Your task to perform on an android device: When is my next meeting? Image 0: 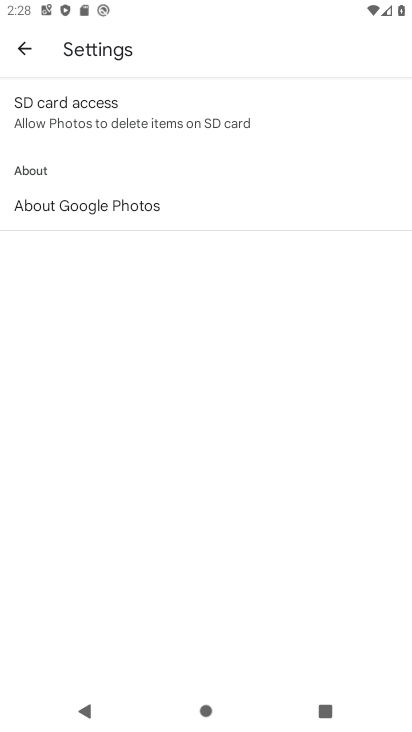
Step 0: click (398, 248)
Your task to perform on an android device: When is my next meeting? Image 1: 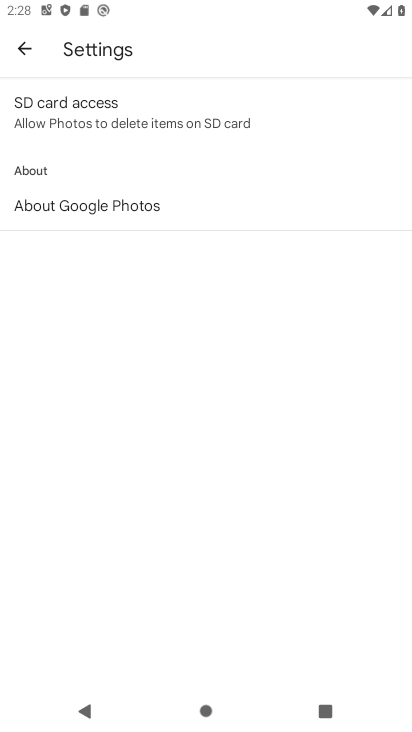
Step 1: drag from (197, 540) to (281, 146)
Your task to perform on an android device: When is my next meeting? Image 2: 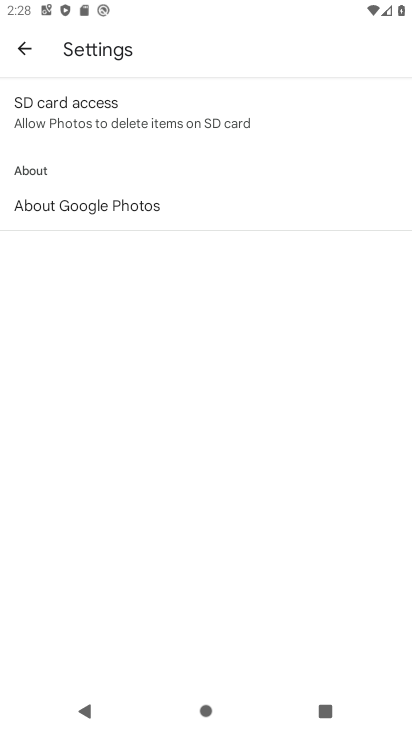
Step 2: press back button
Your task to perform on an android device: When is my next meeting? Image 3: 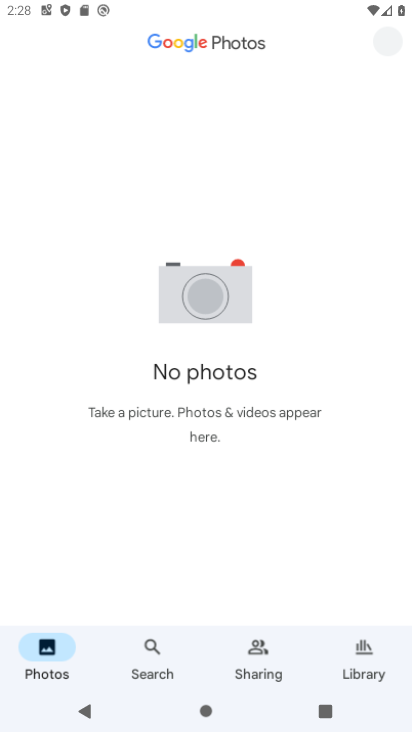
Step 3: press home button
Your task to perform on an android device: When is my next meeting? Image 4: 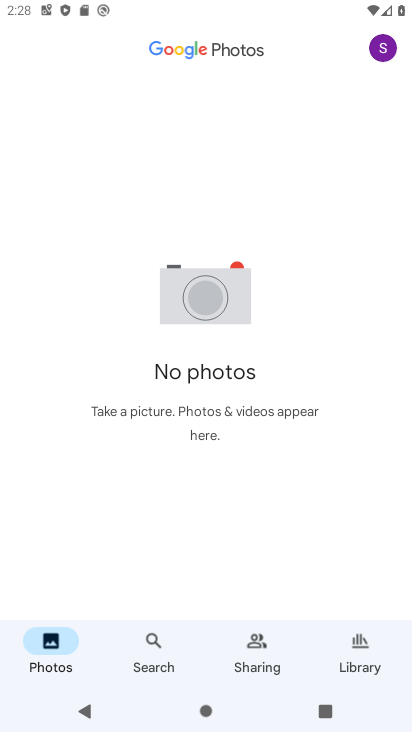
Step 4: press home button
Your task to perform on an android device: When is my next meeting? Image 5: 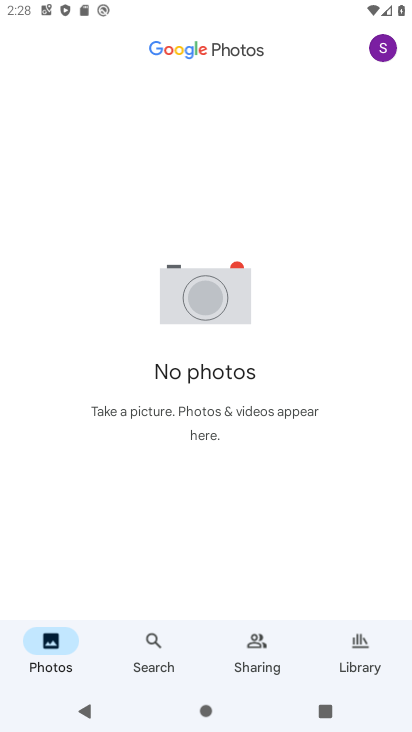
Step 5: click (289, 279)
Your task to perform on an android device: When is my next meeting? Image 6: 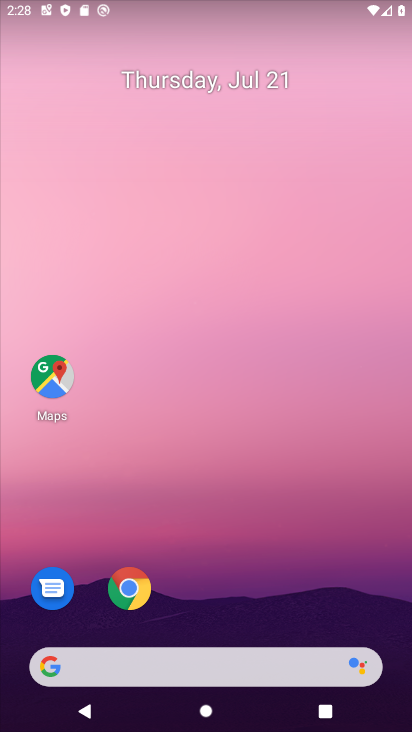
Step 6: press home button
Your task to perform on an android device: When is my next meeting? Image 7: 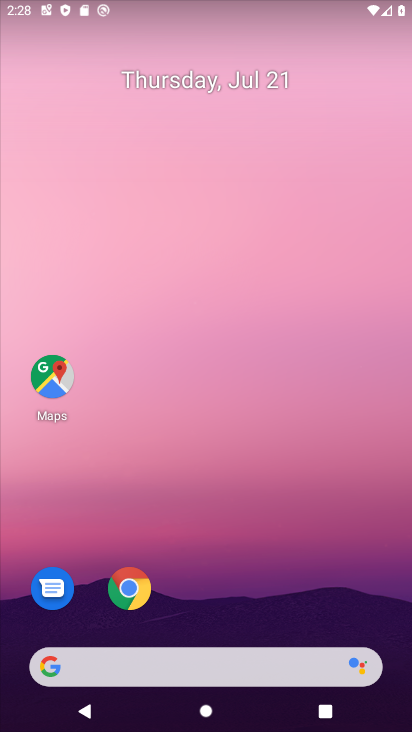
Step 7: press home button
Your task to perform on an android device: When is my next meeting? Image 8: 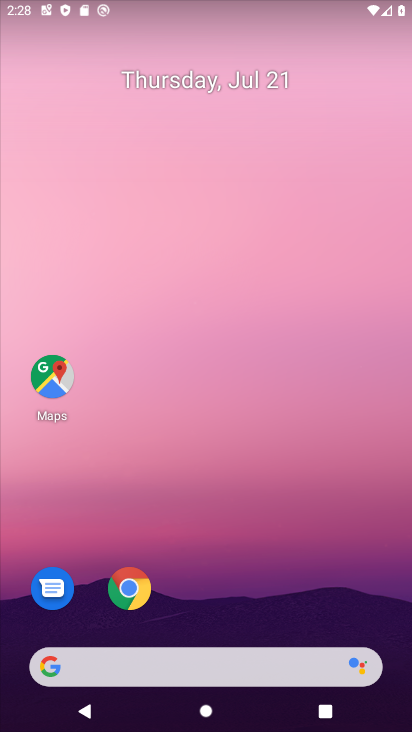
Step 8: drag from (155, 615) to (204, 171)
Your task to perform on an android device: When is my next meeting? Image 9: 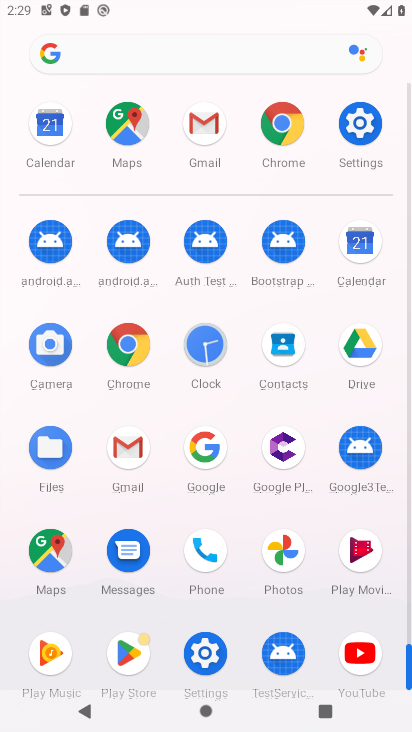
Step 9: click (357, 226)
Your task to perform on an android device: When is my next meeting? Image 10: 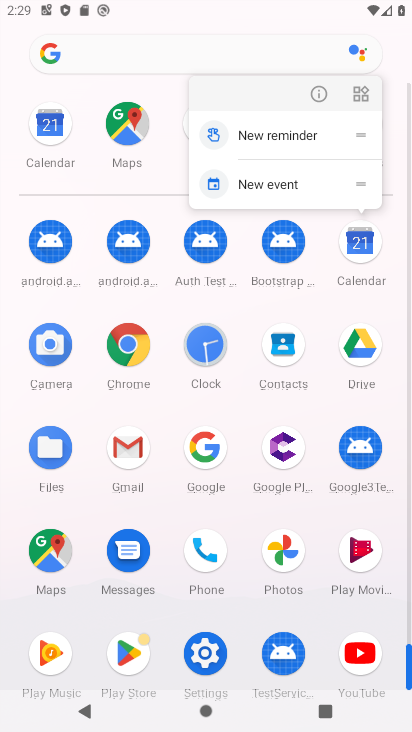
Step 10: click (325, 88)
Your task to perform on an android device: When is my next meeting? Image 11: 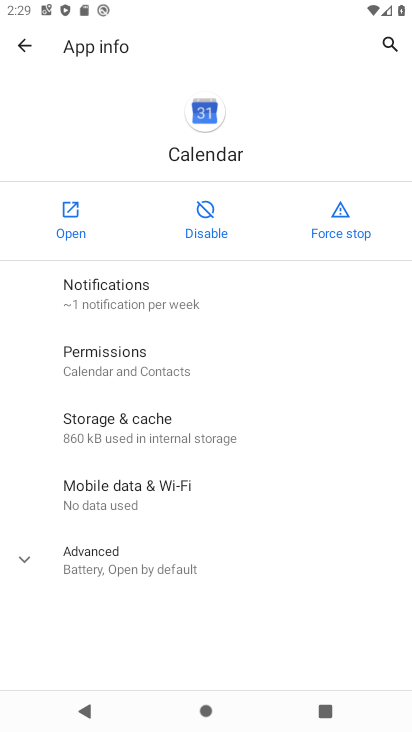
Step 11: click (67, 226)
Your task to perform on an android device: When is my next meeting? Image 12: 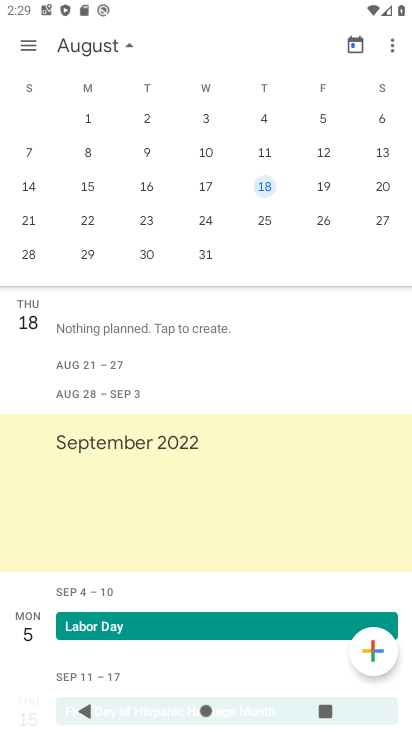
Step 12: drag from (266, 385) to (271, 224)
Your task to perform on an android device: When is my next meeting? Image 13: 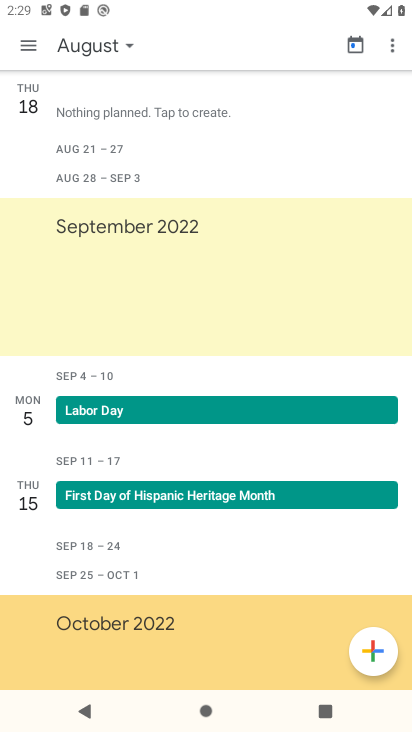
Step 13: click (97, 40)
Your task to perform on an android device: When is my next meeting? Image 14: 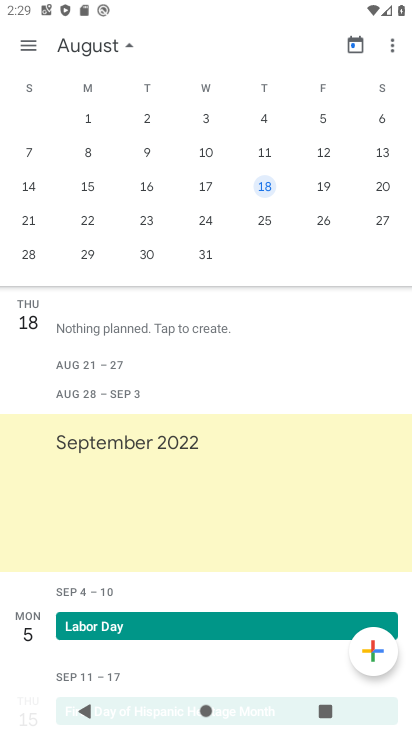
Step 14: click (266, 181)
Your task to perform on an android device: When is my next meeting? Image 15: 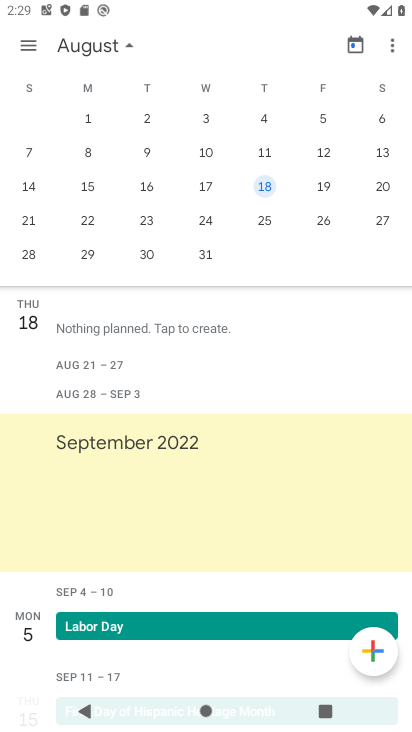
Step 15: click (261, 189)
Your task to perform on an android device: When is my next meeting? Image 16: 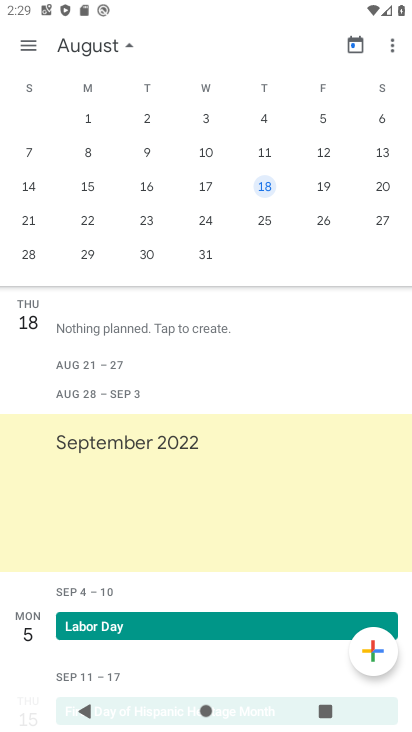
Step 16: click (258, 188)
Your task to perform on an android device: When is my next meeting? Image 17: 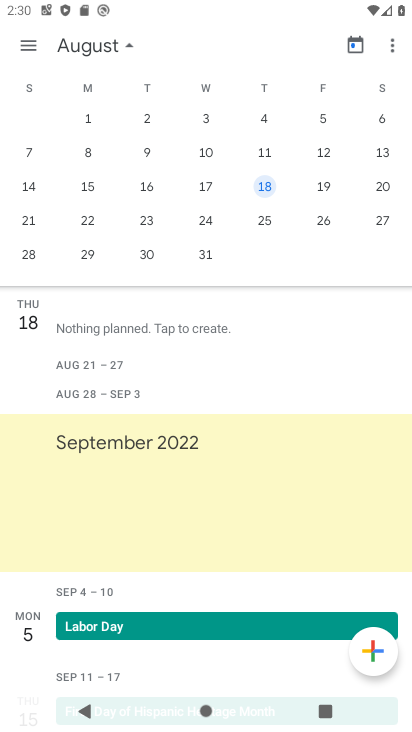
Step 17: click (268, 186)
Your task to perform on an android device: When is my next meeting? Image 18: 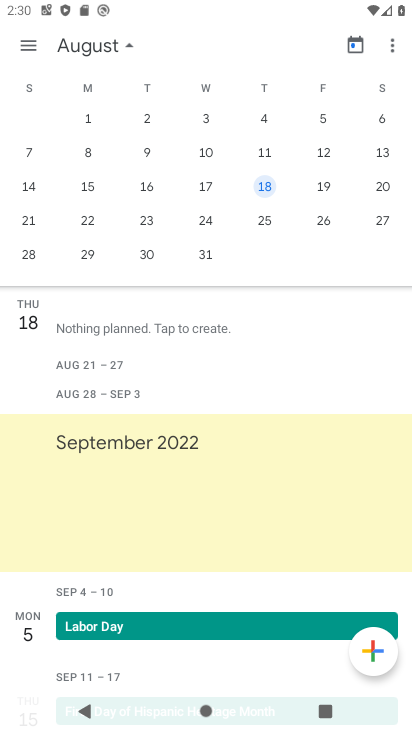
Step 18: task complete